Your task to perform on an android device: find photos in the google photos app Image 0: 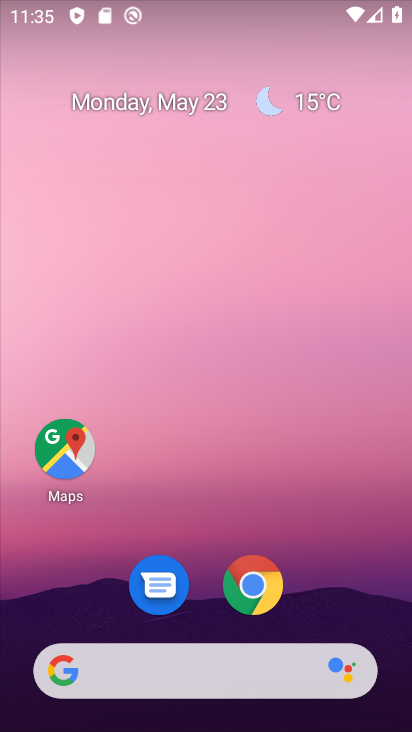
Step 0: drag from (212, 512) to (235, 33)
Your task to perform on an android device: find photos in the google photos app Image 1: 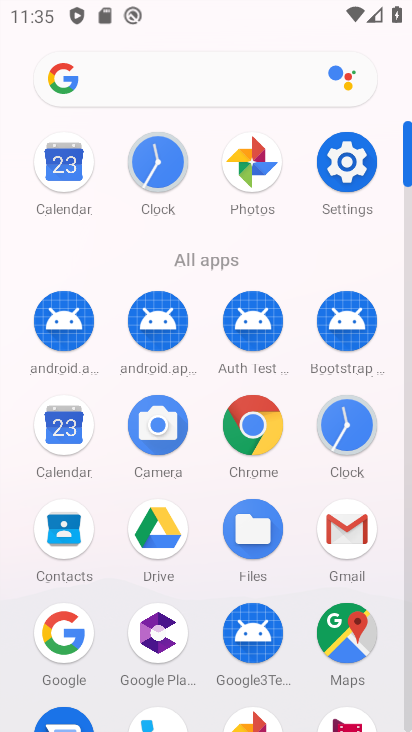
Step 1: click (239, 155)
Your task to perform on an android device: find photos in the google photos app Image 2: 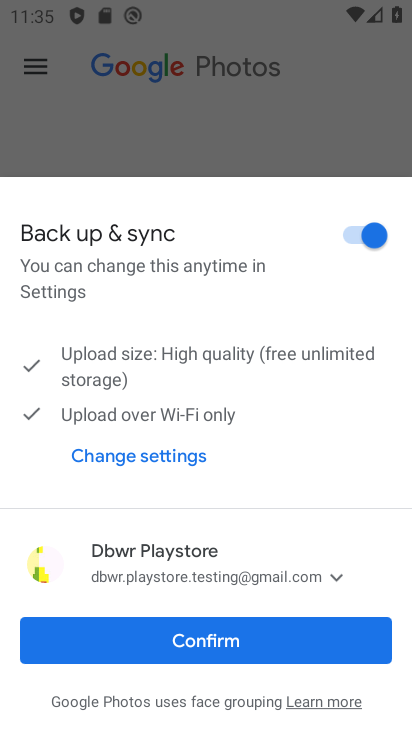
Step 2: click (106, 644)
Your task to perform on an android device: find photos in the google photos app Image 3: 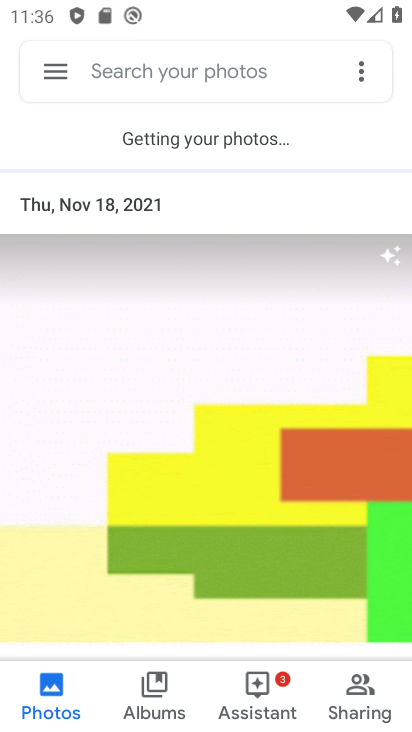
Step 3: task complete